Your task to perform on an android device: turn on showing notifications on the lock screen Image 0: 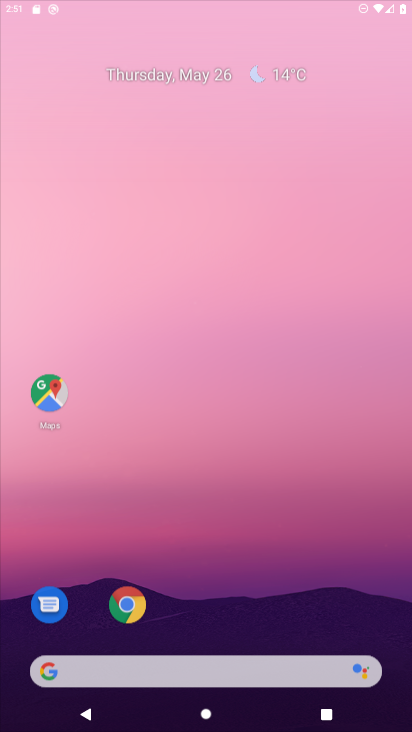
Step 0: drag from (259, 549) to (230, 129)
Your task to perform on an android device: turn on showing notifications on the lock screen Image 1: 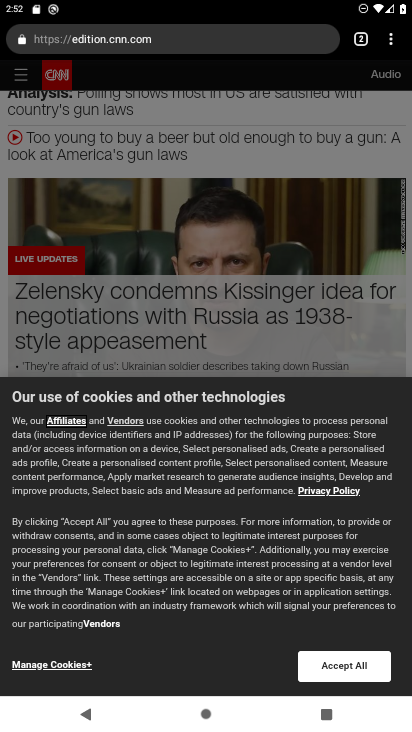
Step 1: press home button
Your task to perform on an android device: turn on showing notifications on the lock screen Image 2: 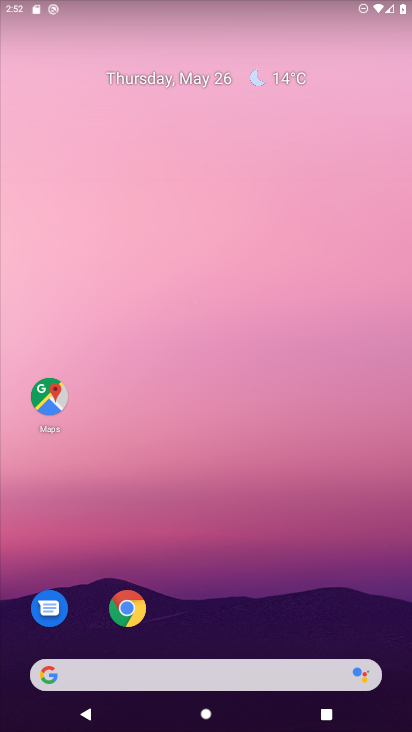
Step 2: drag from (328, 489) to (298, 61)
Your task to perform on an android device: turn on showing notifications on the lock screen Image 3: 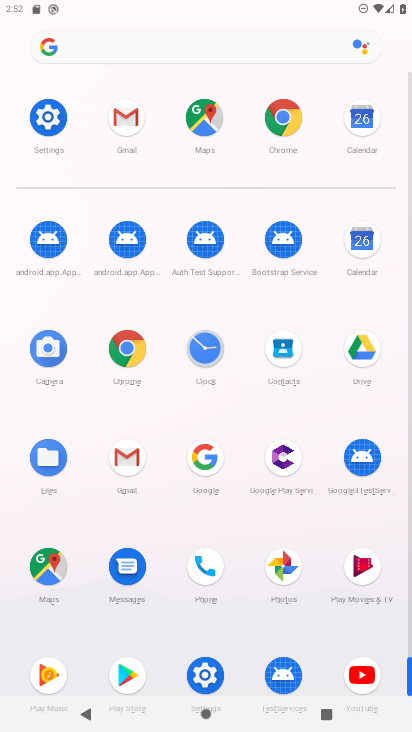
Step 3: click (37, 128)
Your task to perform on an android device: turn on showing notifications on the lock screen Image 4: 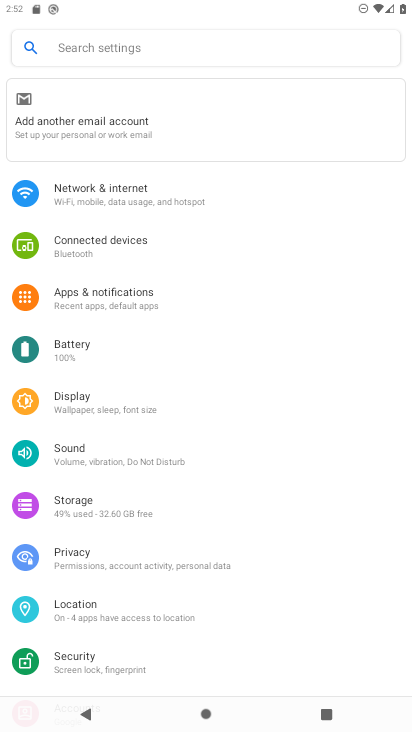
Step 4: click (124, 296)
Your task to perform on an android device: turn on showing notifications on the lock screen Image 5: 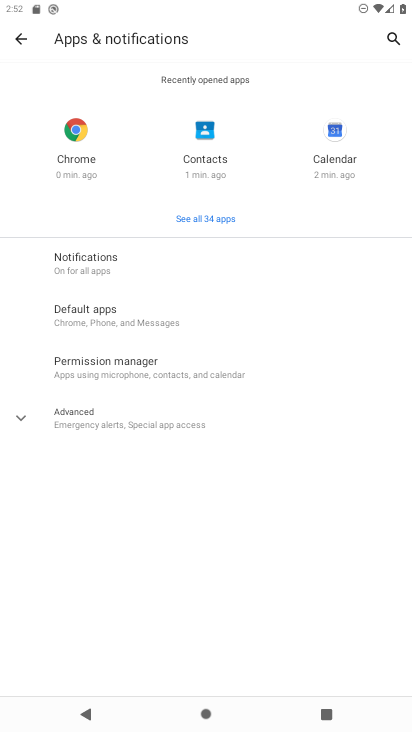
Step 5: click (65, 268)
Your task to perform on an android device: turn on showing notifications on the lock screen Image 6: 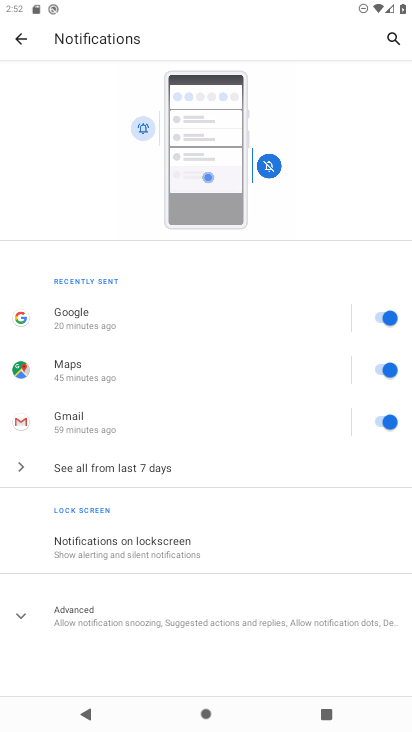
Step 6: click (149, 553)
Your task to perform on an android device: turn on showing notifications on the lock screen Image 7: 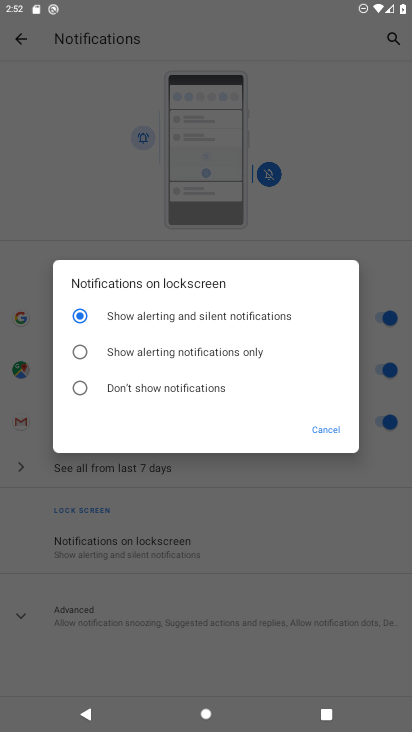
Step 7: click (176, 353)
Your task to perform on an android device: turn on showing notifications on the lock screen Image 8: 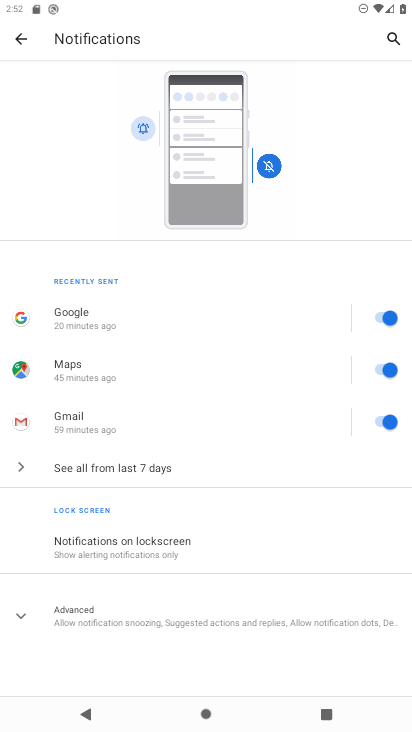
Step 8: task complete